Your task to perform on an android device: clear all cookies in the chrome app Image 0: 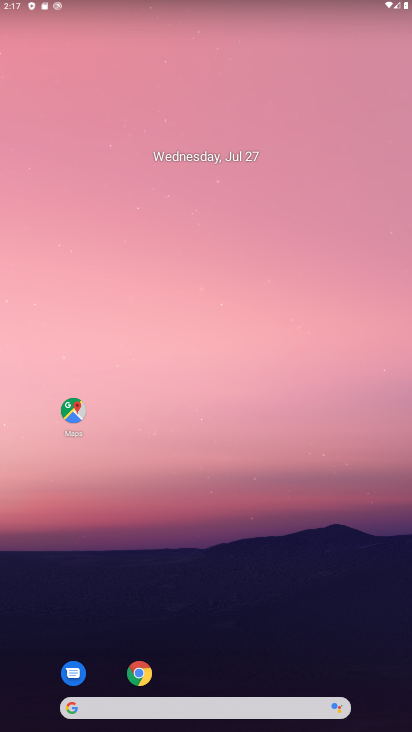
Step 0: click (139, 681)
Your task to perform on an android device: clear all cookies in the chrome app Image 1: 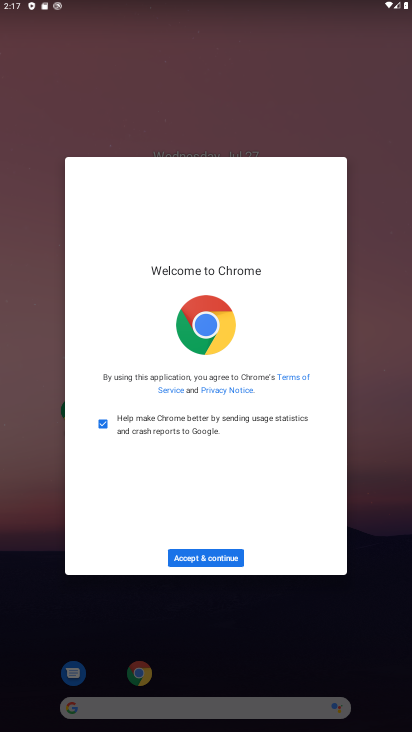
Step 1: click (195, 546)
Your task to perform on an android device: clear all cookies in the chrome app Image 2: 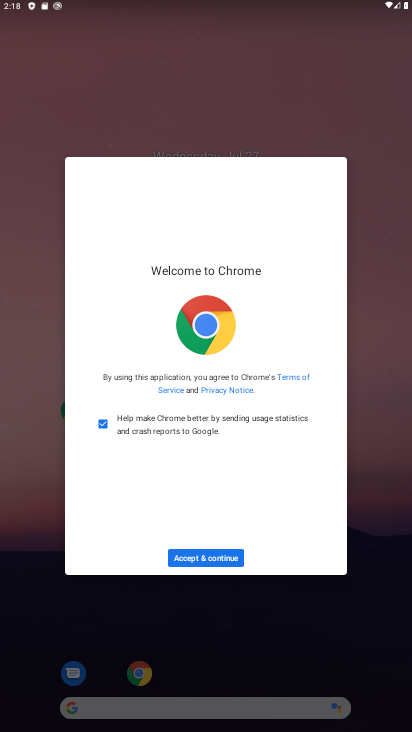
Step 2: click (195, 558)
Your task to perform on an android device: clear all cookies in the chrome app Image 3: 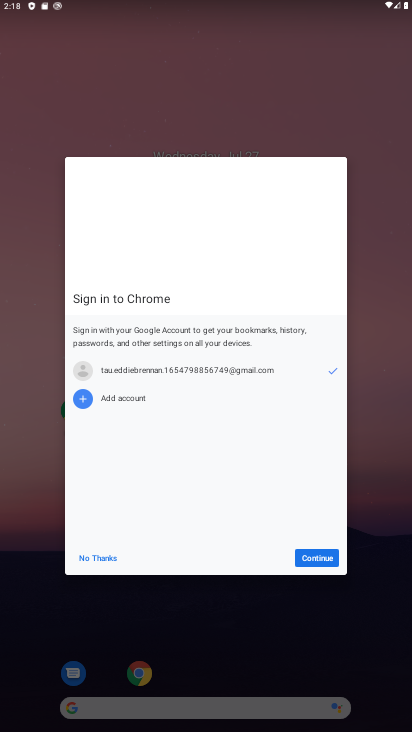
Step 3: click (315, 551)
Your task to perform on an android device: clear all cookies in the chrome app Image 4: 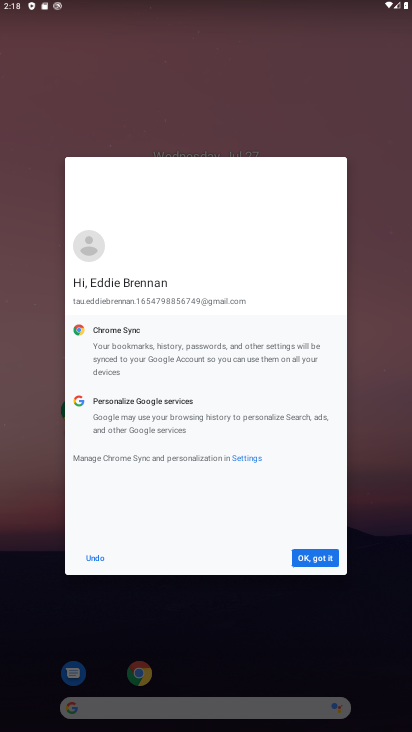
Step 4: click (315, 557)
Your task to perform on an android device: clear all cookies in the chrome app Image 5: 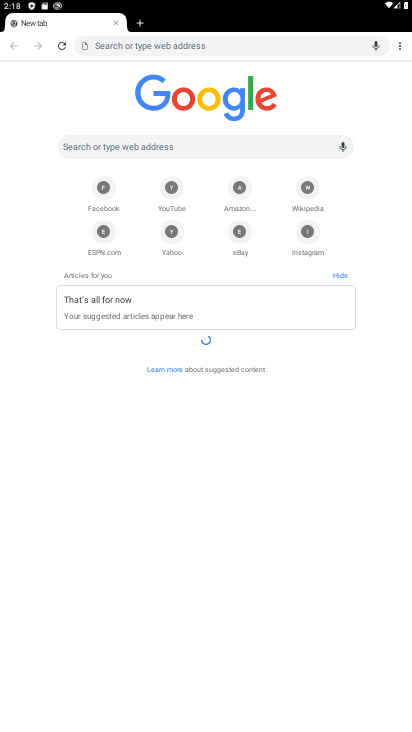
Step 5: click (397, 46)
Your task to perform on an android device: clear all cookies in the chrome app Image 6: 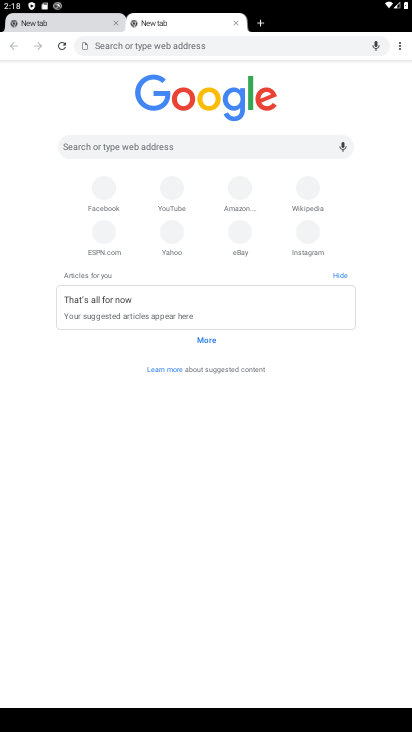
Step 6: click (399, 45)
Your task to perform on an android device: clear all cookies in the chrome app Image 7: 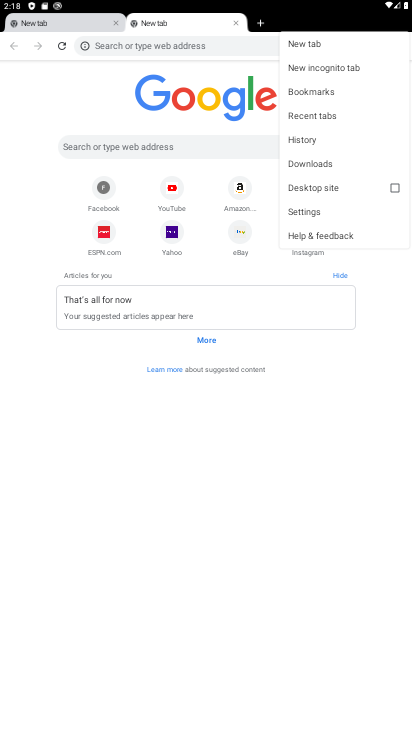
Step 7: click (298, 208)
Your task to perform on an android device: clear all cookies in the chrome app Image 8: 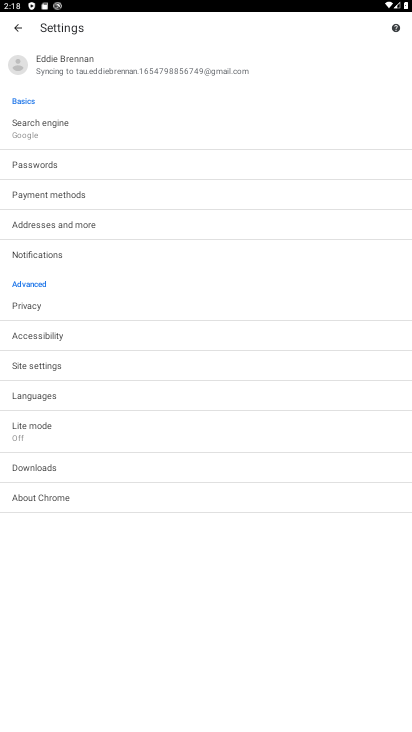
Step 8: click (18, 36)
Your task to perform on an android device: clear all cookies in the chrome app Image 9: 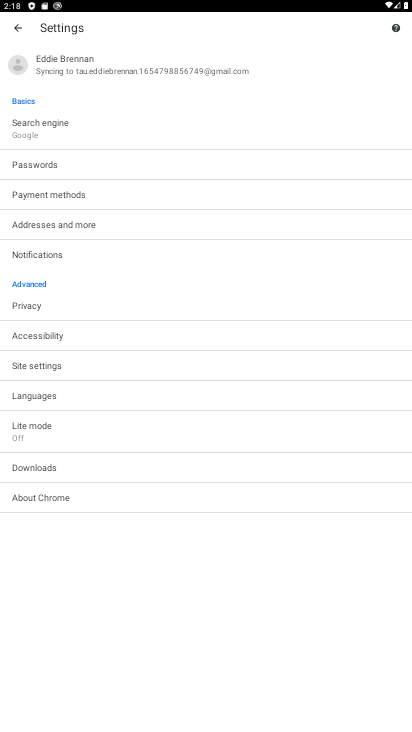
Step 9: click (18, 23)
Your task to perform on an android device: clear all cookies in the chrome app Image 10: 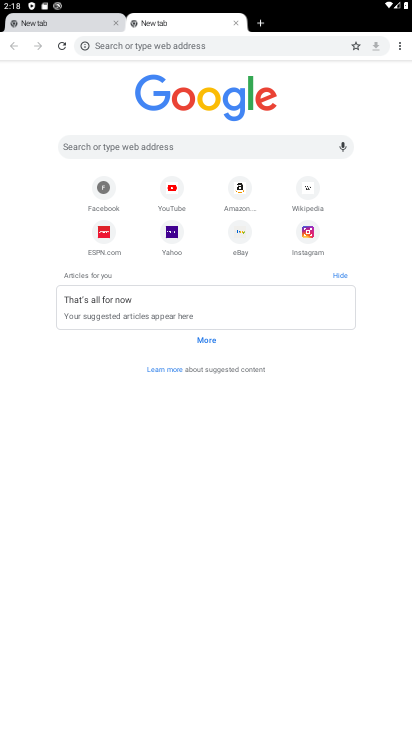
Step 10: click (401, 40)
Your task to perform on an android device: clear all cookies in the chrome app Image 11: 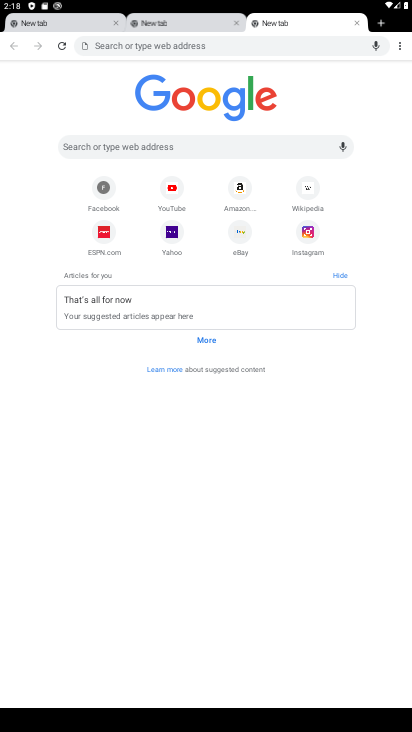
Step 11: click (398, 50)
Your task to perform on an android device: clear all cookies in the chrome app Image 12: 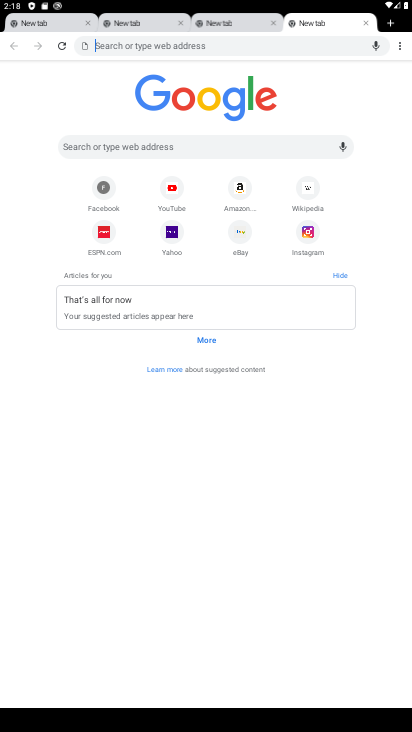
Step 12: task complete